Your task to perform on an android device: all mails in gmail Image 0: 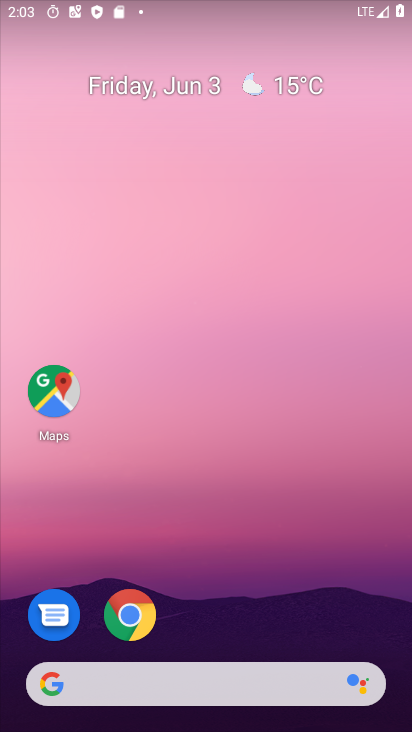
Step 0: click (274, 11)
Your task to perform on an android device: all mails in gmail Image 1: 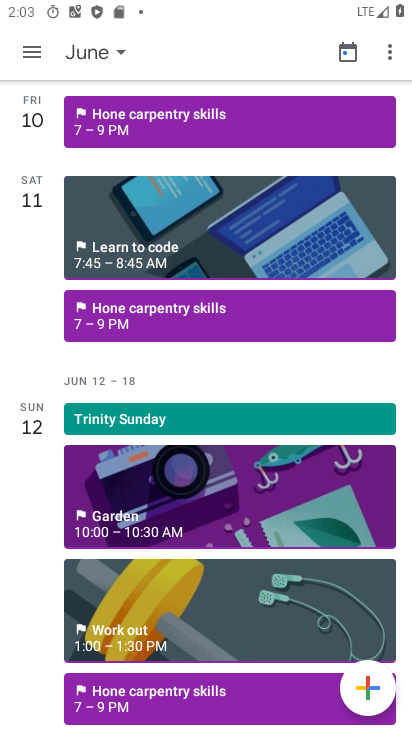
Step 1: press home button
Your task to perform on an android device: all mails in gmail Image 2: 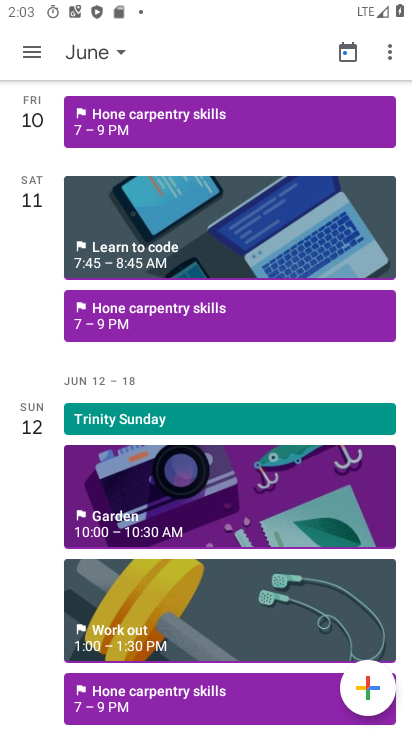
Step 2: drag from (225, 587) to (291, 4)
Your task to perform on an android device: all mails in gmail Image 3: 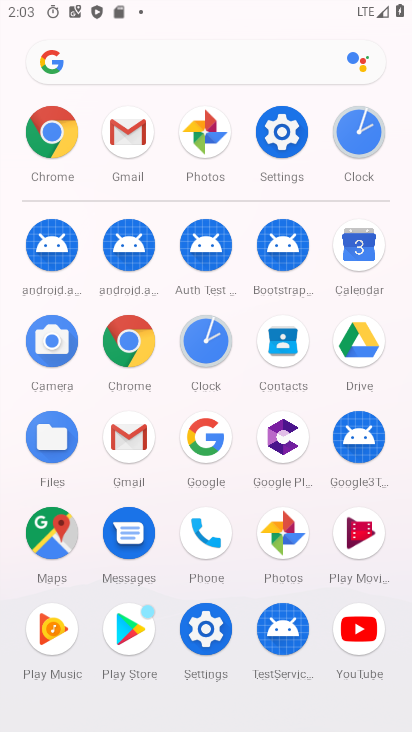
Step 3: click (136, 448)
Your task to perform on an android device: all mails in gmail Image 4: 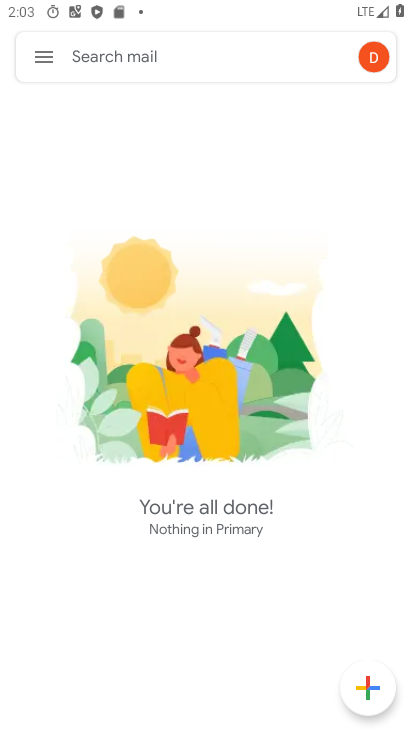
Step 4: click (37, 51)
Your task to perform on an android device: all mails in gmail Image 5: 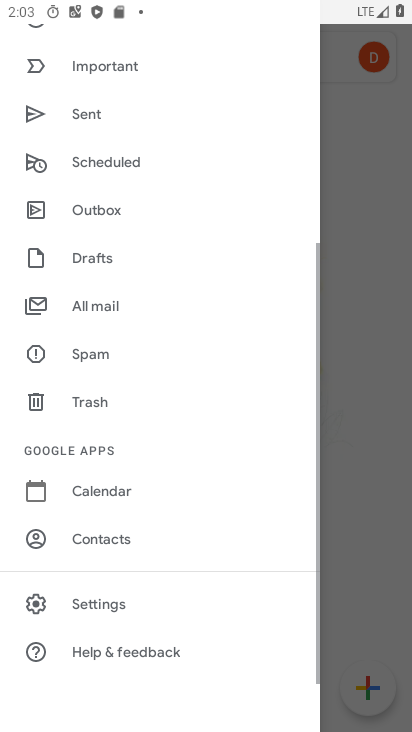
Step 5: drag from (135, 575) to (228, 150)
Your task to perform on an android device: all mails in gmail Image 6: 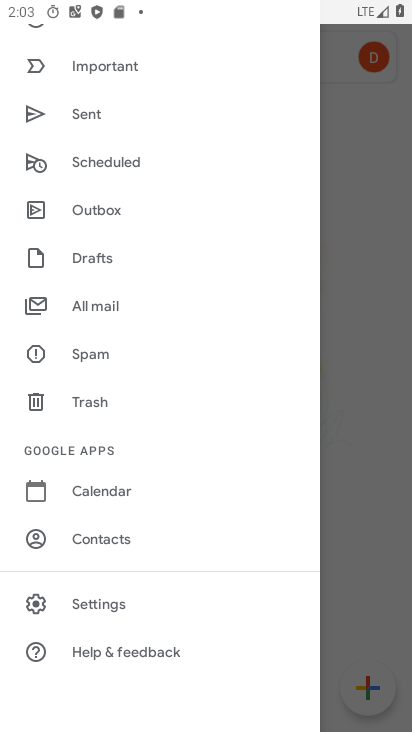
Step 6: click (122, 601)
Your task to perform on an android device: all mails in gmail Image 7: 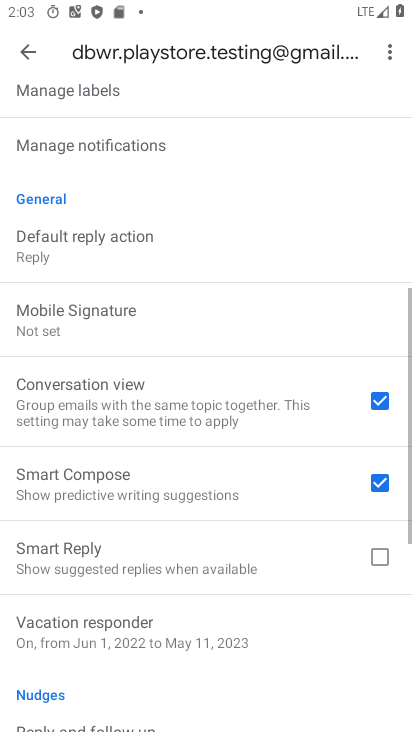
Step 7: click (25, 54)
Your task to perform on an android device: all mails in gmail Image 8: 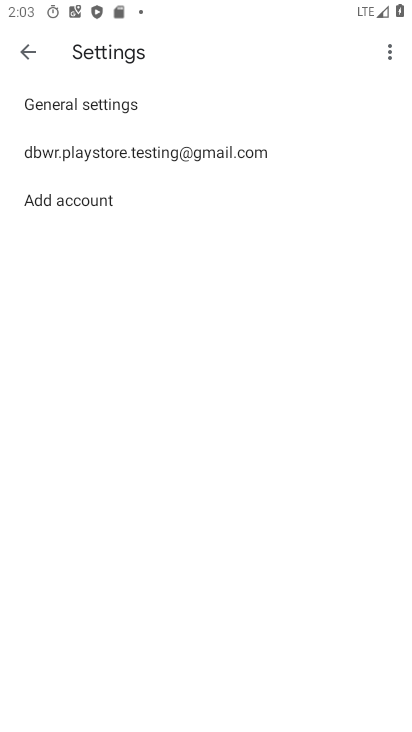
Step 8: click (25, 54)
Your task to perform on an android device: all mails in gmail Image 9: 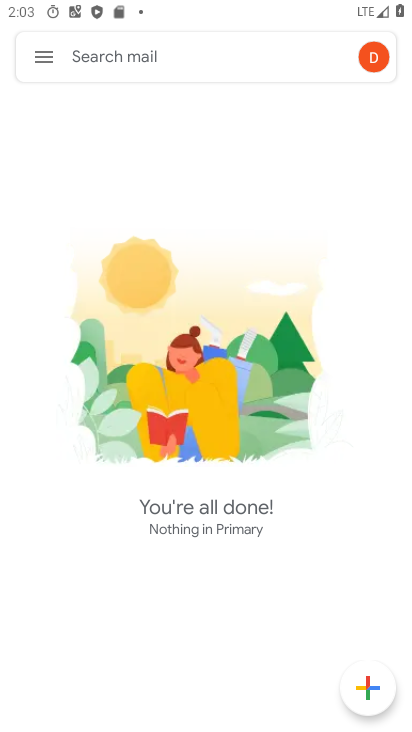
Step 9: click (25, 54)
Your task to perform on an android device: all mails in gmail Image 10: 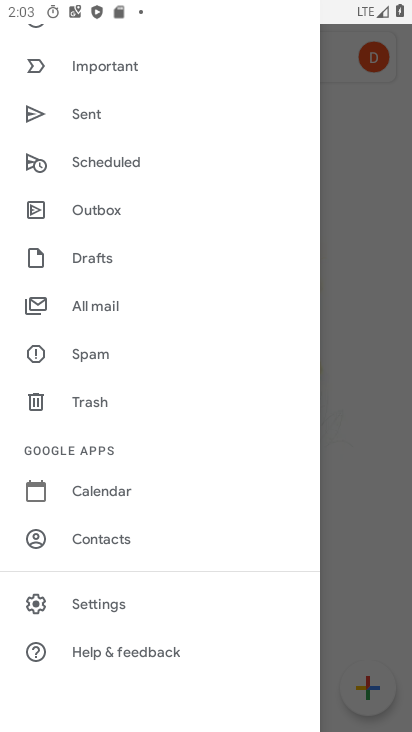
Step 10: click (106, 291)
Your task to perform on an android device: all mails in gmail Image 11: 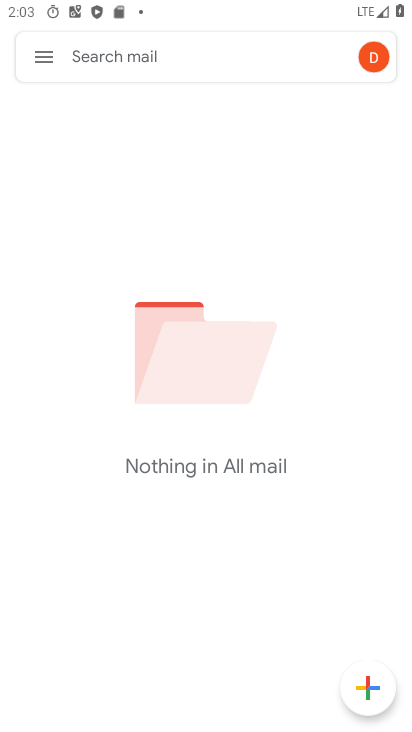
Step 11: task complete